Your task to perform on an android device: open app "Adobe Acrobat Reader" (install if not already installed) Image 0: 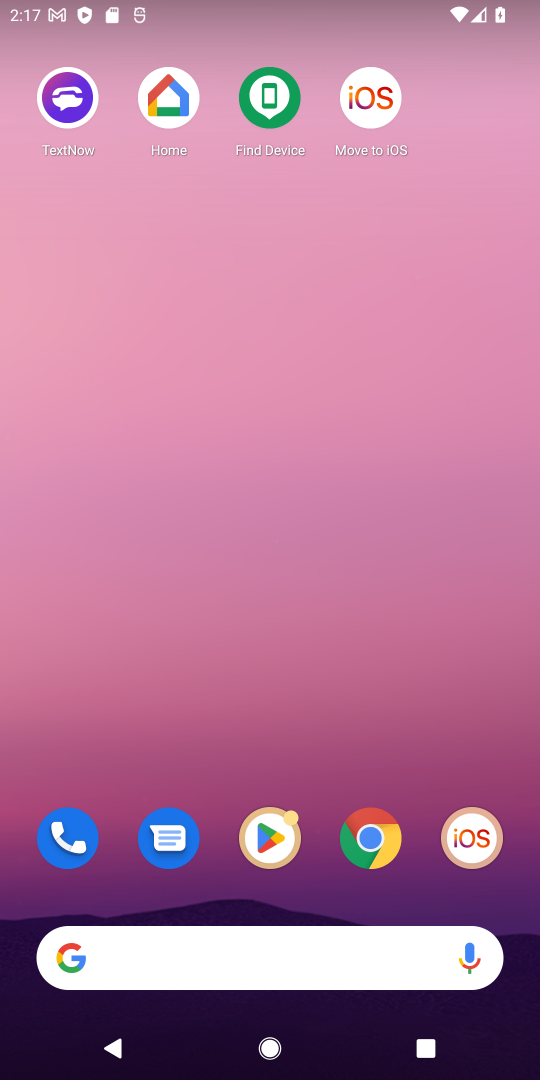
Step 0: click (268, 836)
Your task to perform on an android device: open app "Adobe Acrobat Reader" (install if not already installed) Image 1: 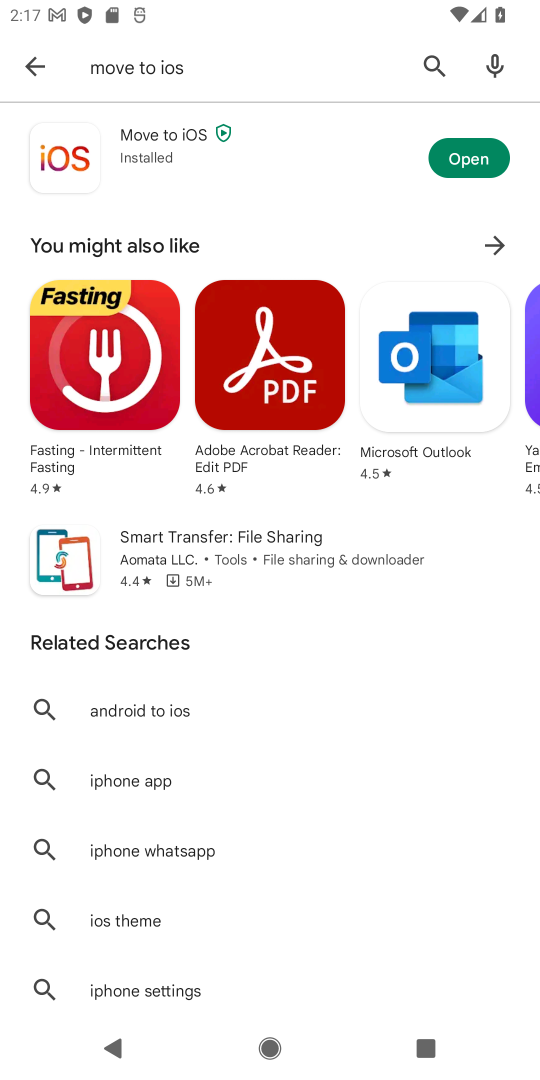
Step 1: click (34, 57)
Your task to perform on an android device: open app "Adobe Acrobat Reader" (install if not already installed) Image 2: 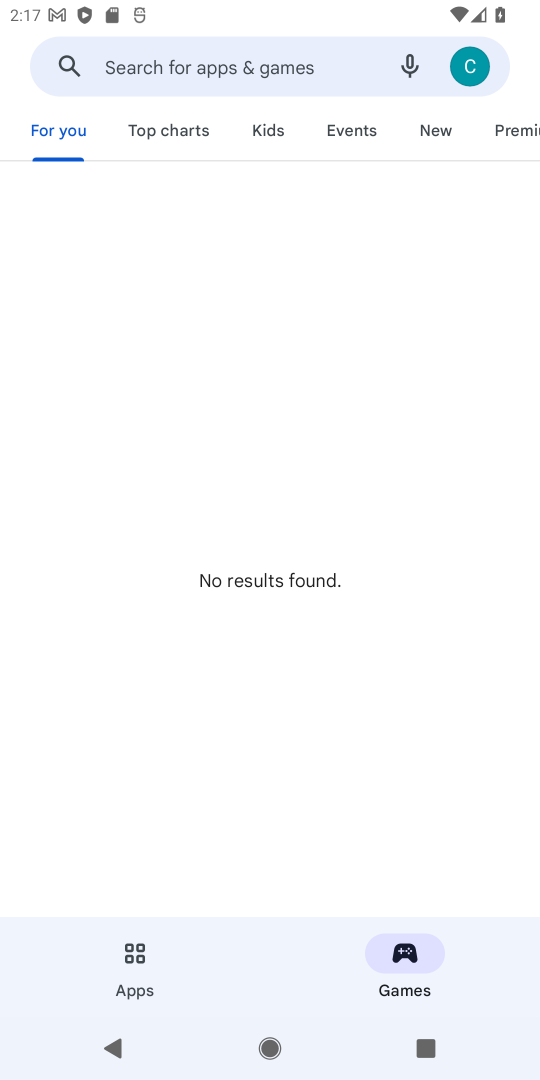
Step 2: click (142, 969)
Your task to perform on an android device: open app "Adobe Acrobat Reader" (install if not already installed) Image 3: 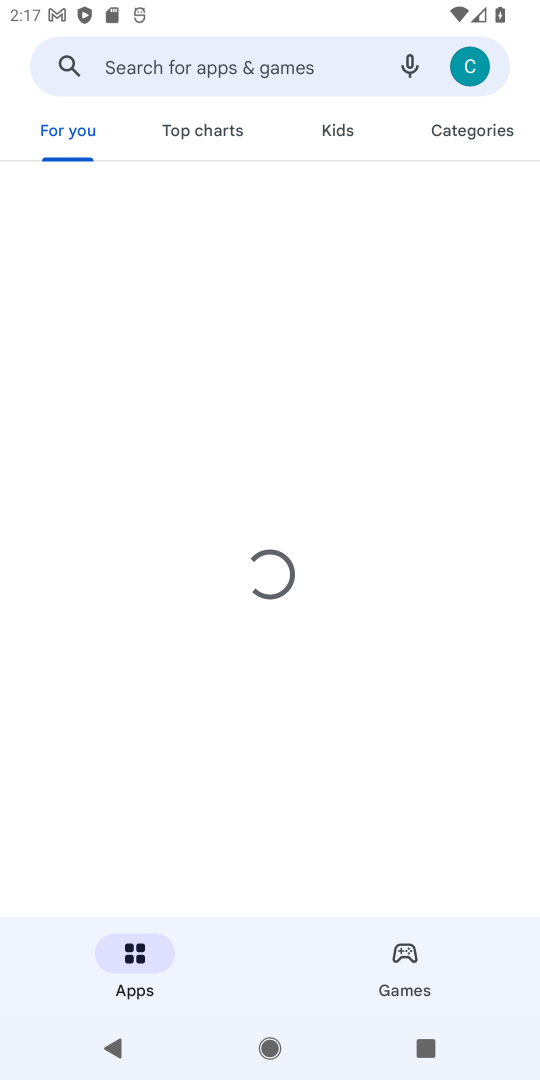
Step 3: click (200, 61)
Your task to perform on an android device: open app "Adobe Acrobat Reader" (install if not already installed) Image 4: 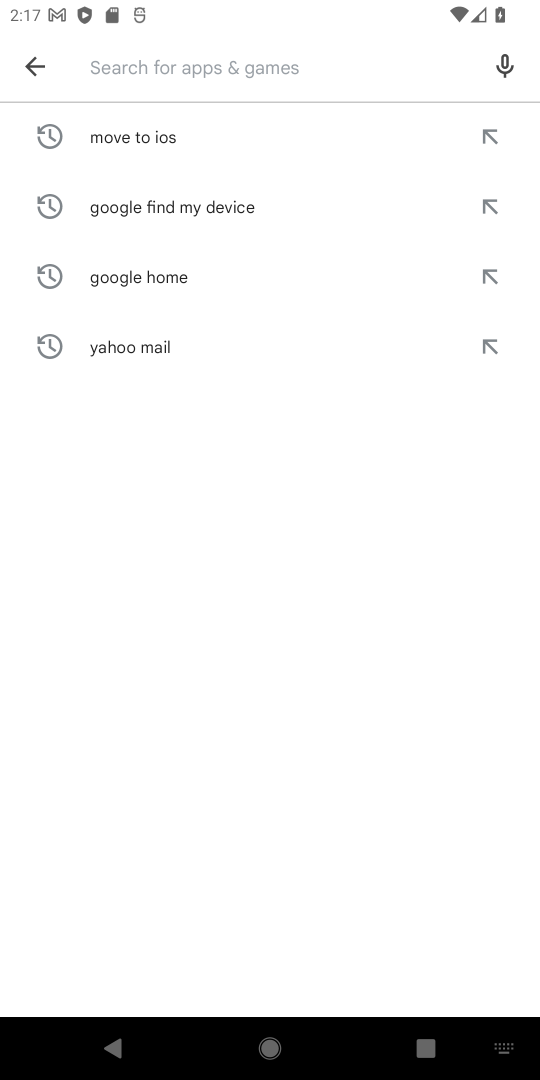
Step 4: type "Adobe Acrobat Reader"
Your task to perform on an android device: open app "Adobe Acrobat Reader" (install if not already installed) Image 5: 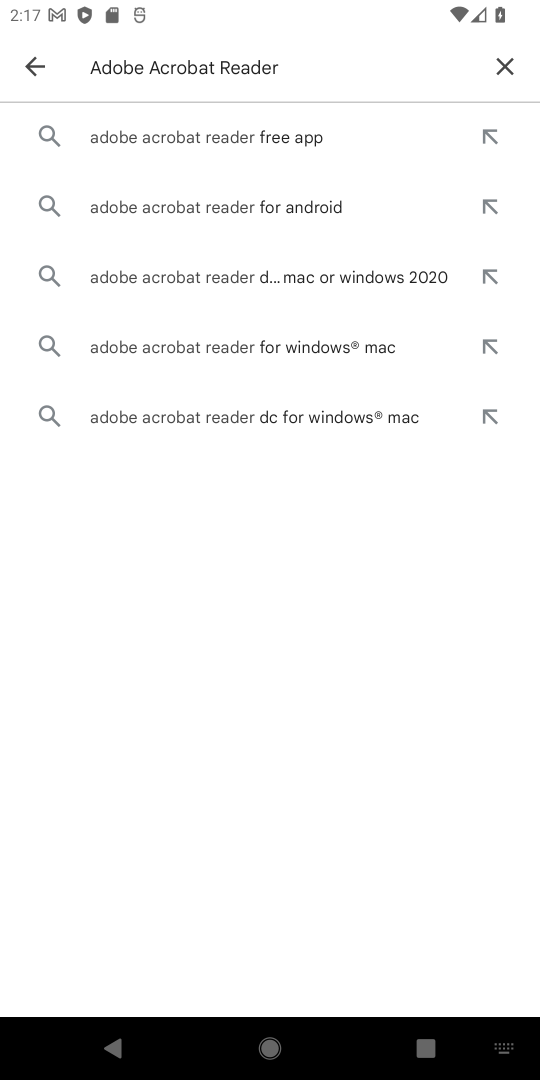
Step 5: click (191, 143)
Your task to perform on an android device: open app "Adobe Acrobat Reader" (install if not already installed) Image 6: 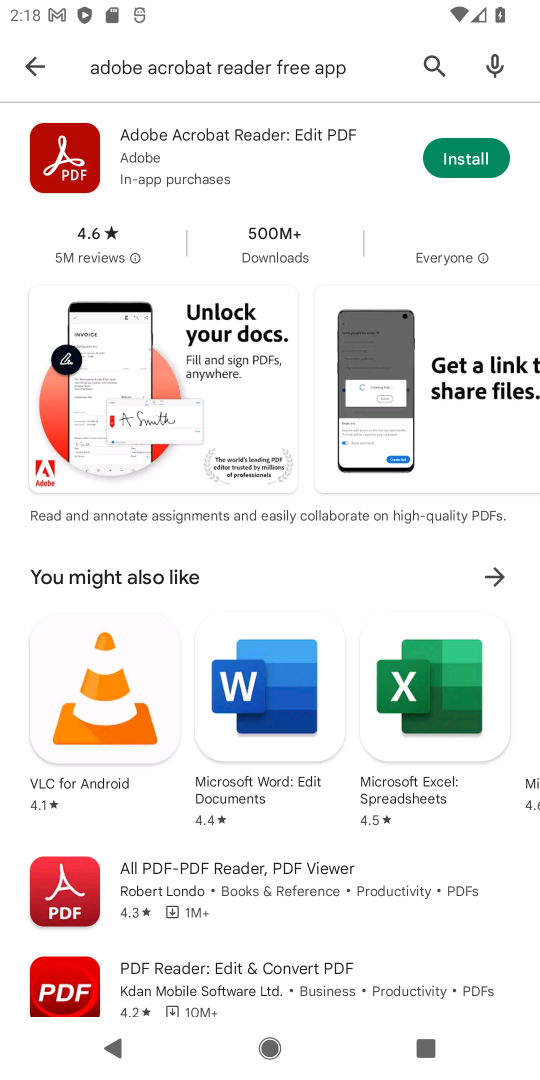
Step 6: click (456, 168)
Your task to perform on an android device: open app "Adobe Acrobat Reader" (install if not already installed) Image 7: 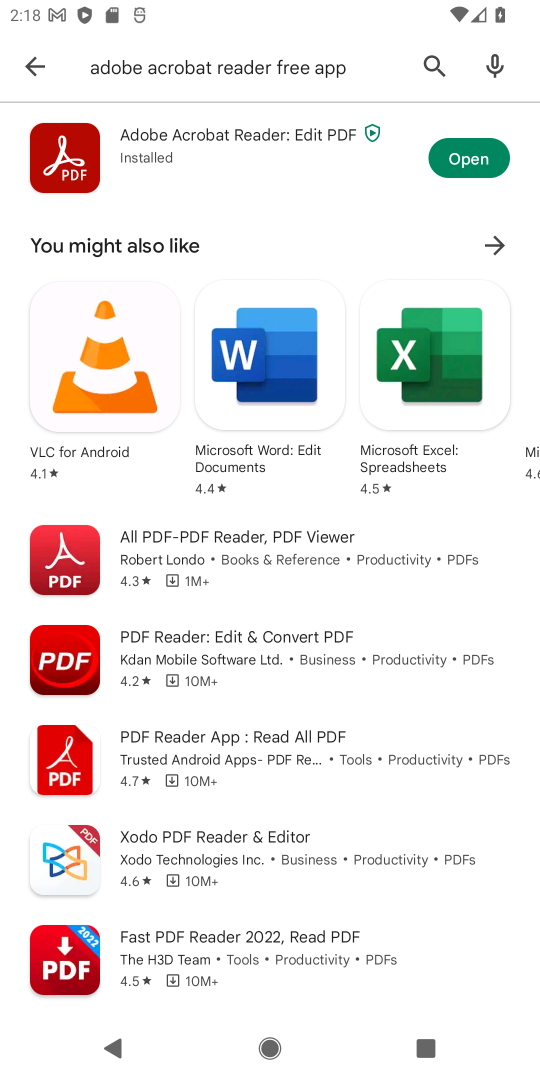
Step 7: click (456, 168)
Your task to perform on an android device: open app "Adobe Acrobat Reader" (install if not already installed) Image 8: 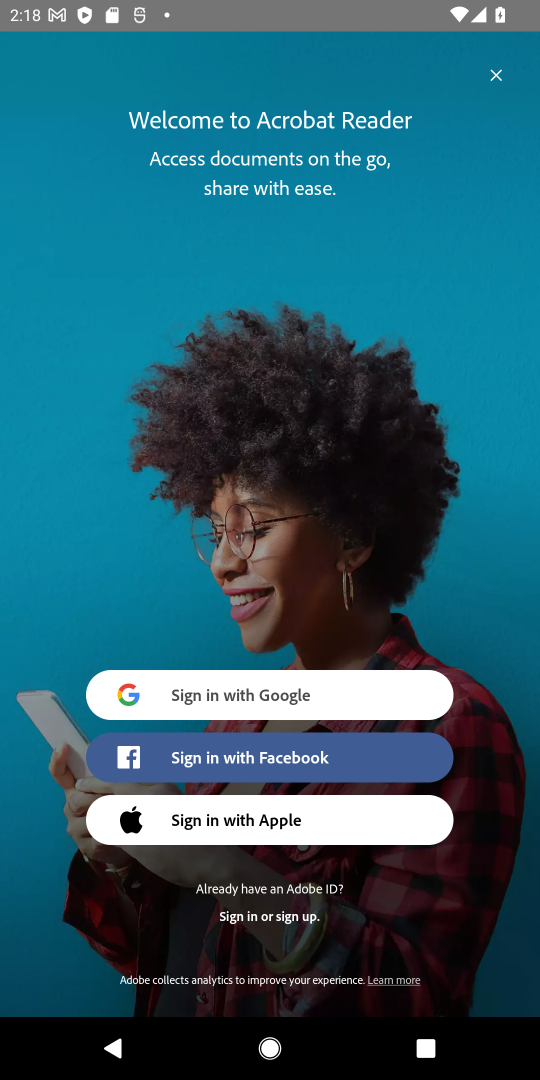
Step 8: task complete